Your task to perform on an android device: open wifi settings Image 0: 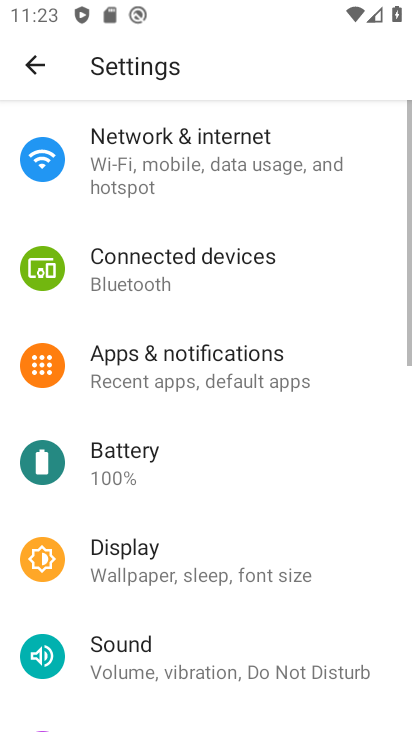
Step 0: click (219, 169)
Your task to perform on an android device: open wifi settings Image 1: 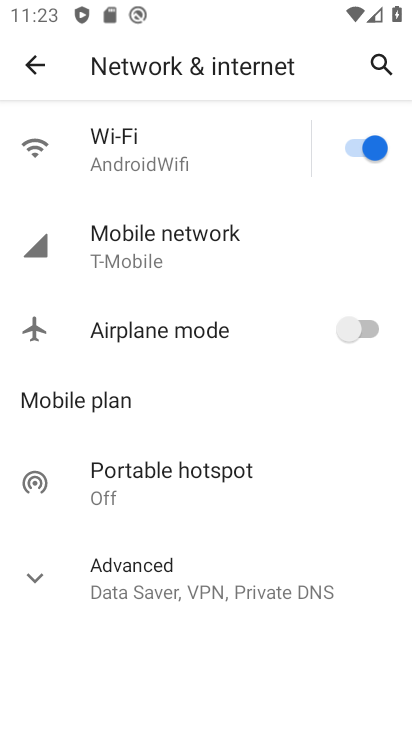
Step 1: click (166, 165)
Your task to perform on an android device: open wifi settings Image 2: 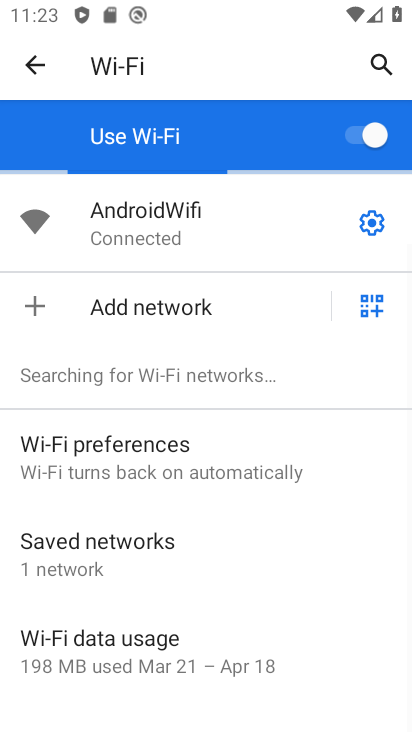
Step 2: task complete